Your task to perform on an android device: change keyboard looks Image 0: 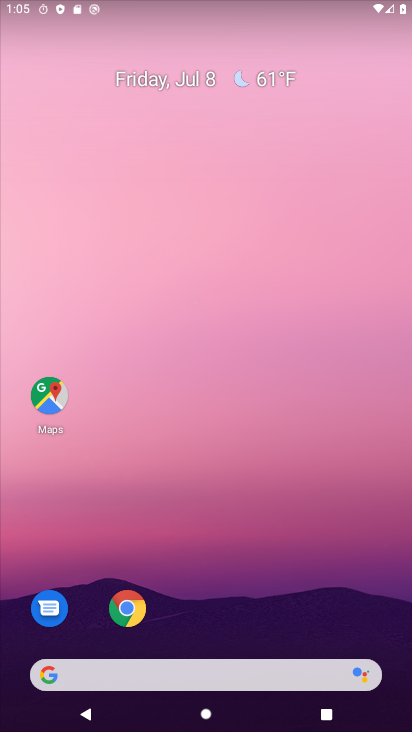
Step 0: drag from (228, 620) to (236, 81)
Your task to perform on an android device: change keyboard looks Image 1: 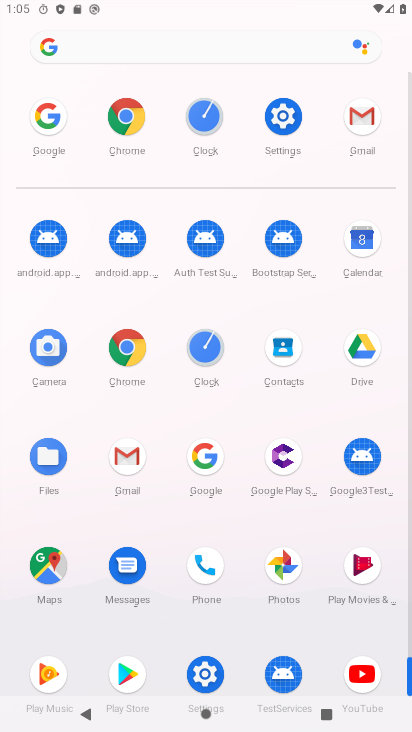
Step 1: click (279, 120)
Your task to perform on an android device: change keyboard looks Image 2: 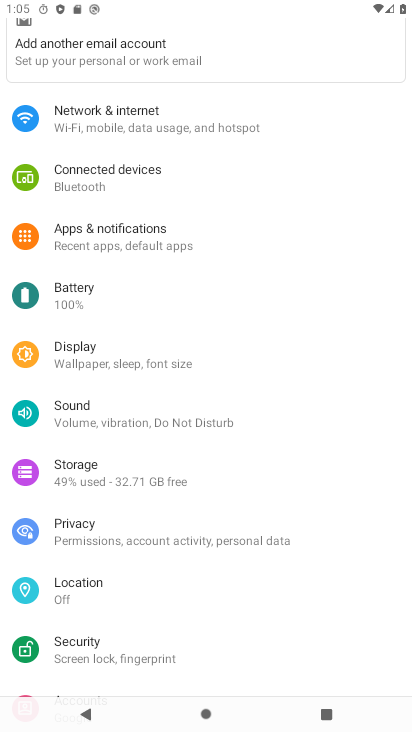
Step 2: drag from (134, 617) to (152, 310)
Your task to perform on an android device: change keyboard looks Image 3: 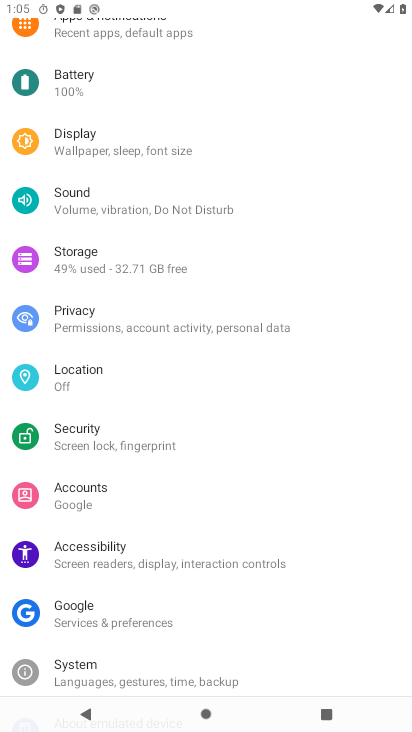
Step 3: drag from (197, 570) to (206, 305)
Your task to perform on an android device: change keyboard looks Image 4: 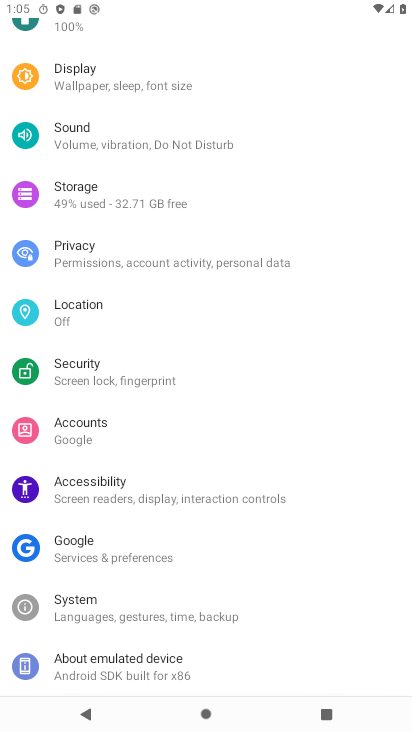
Step 4: click (83, 603)
Your task to perform on an android device: change keyboard looks Image 5: 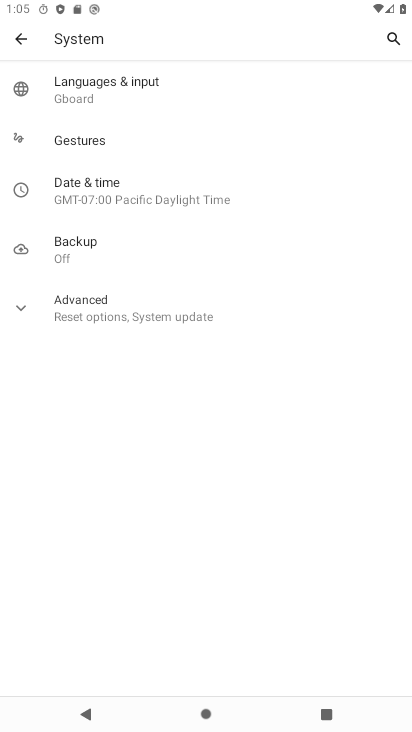
Step 5: click (85, 92)
Your task to perform on an android device: change keyboard looks Image 6: 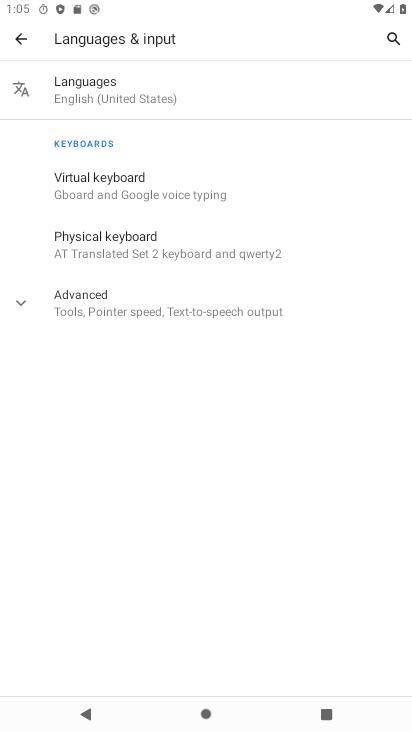
Step 6: click (129, 191)
Your task to perform on an android device: change keyboard looks Image 7: 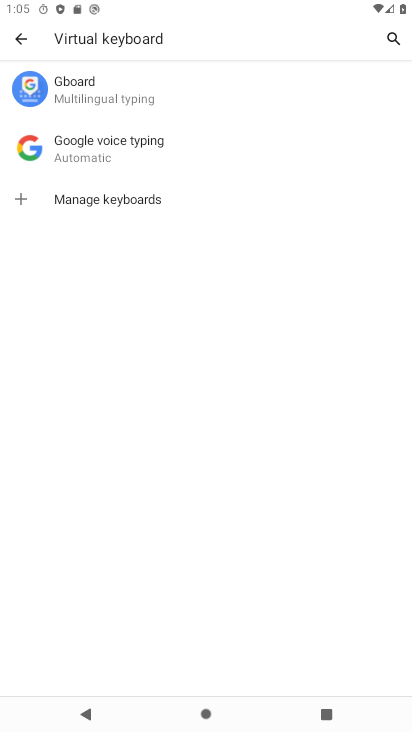
Step 7: click (88, 94)
Your task to perform on an android device: change keyboard looks Image 8: 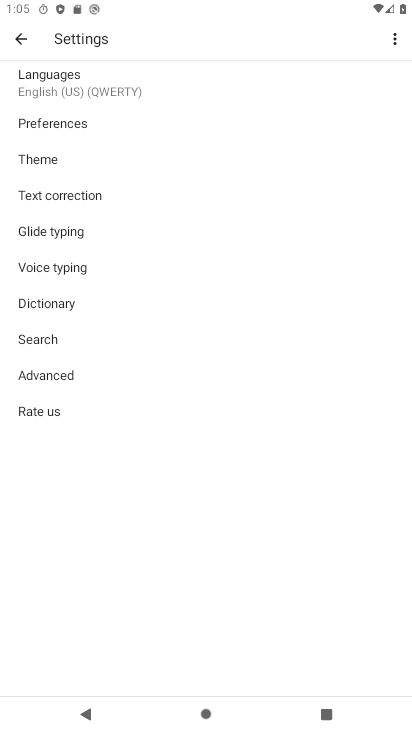
Step 8: click (63, 158)
Your task to perform on an android device: change keyboard looks Image 9: 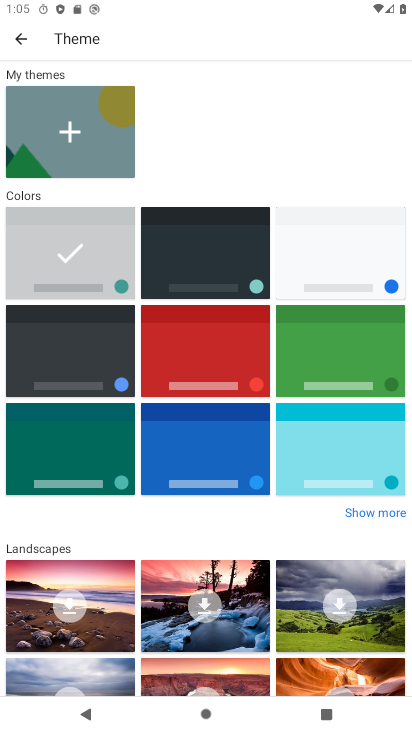
Step 9: click (220, 280)
Your task to perform on an android device: change keyboard looks Image 10: 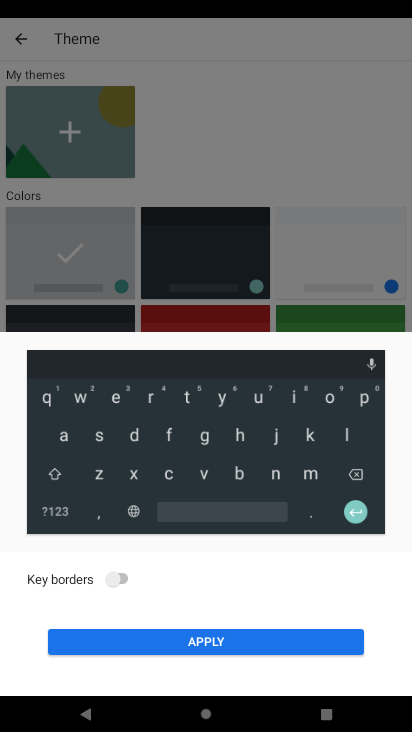
Step 10: click (189, 644)
Your task to perform on an android device: change keyboard looks Image 11: 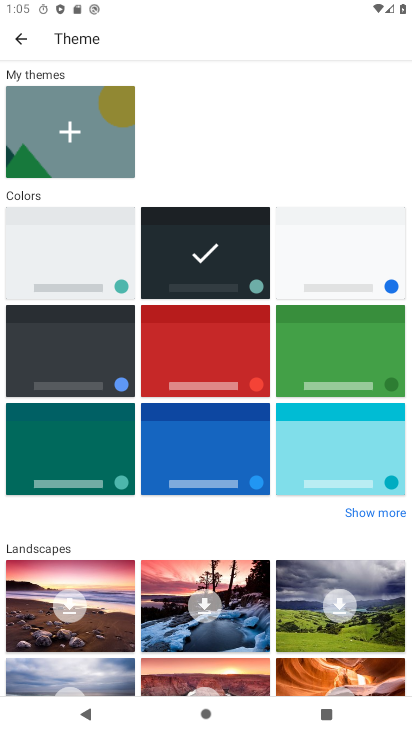
Step 11: task complete